Your task to perform on an android device: Go to Maps Image 0: 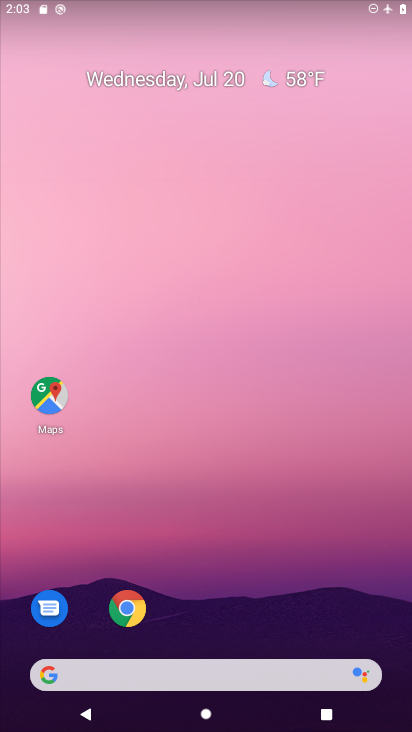
Step 0: drag from (244, 699) to (239, 145)
Your task to perform on an android device: Go to Maps Image 1: 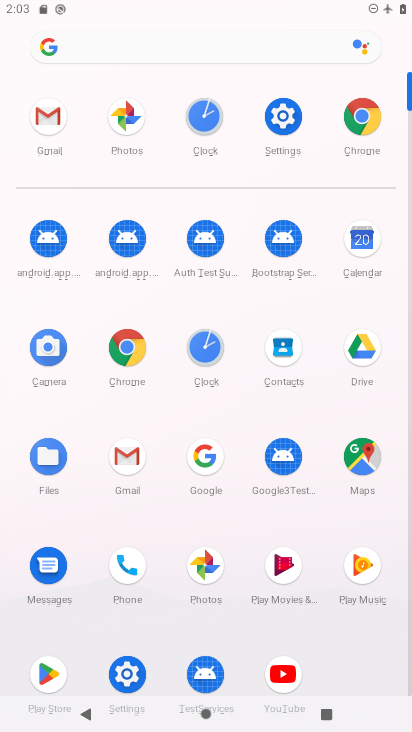
Step 1: click (362, 448)
Your task to perform on an android device: Go to Maps Image 2: 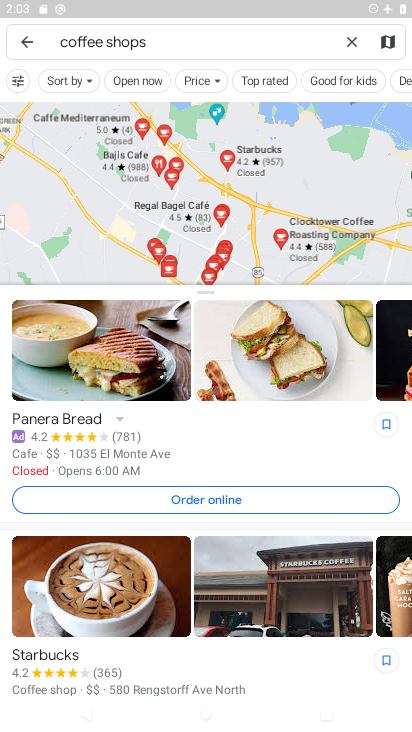
Step 2: task complete